Your task to perform on an android device: delete a single message in the gmail app Image 0: 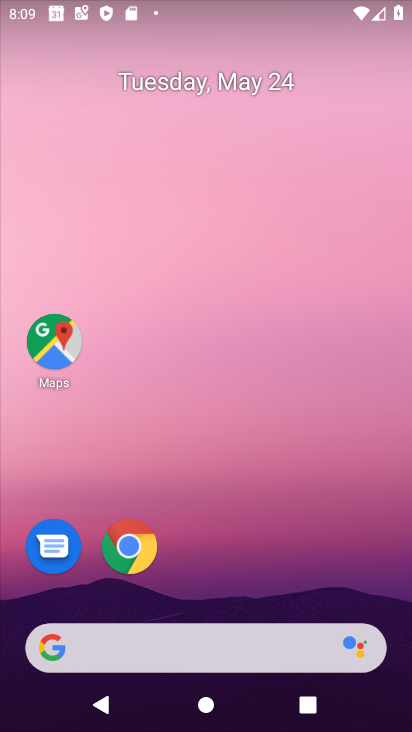
Step 0: drag from (251, 555) to (215, 11)
Your task to perform on an android device: delete a single message in the gmail app Image 1: 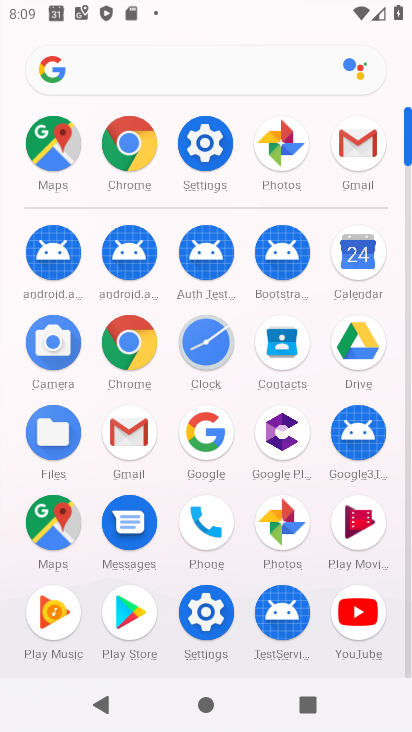
Step 1: click (349, 135)
Your task to perform on an android device: delete a single message in the gmail app Image 2: 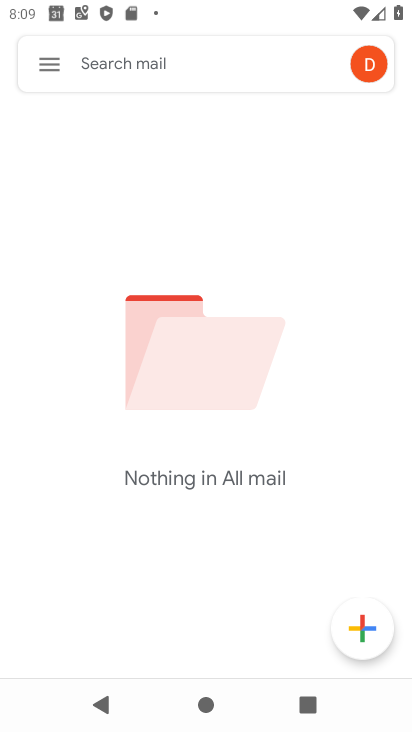
Step 2: task complete